Your task to perform on an android device: Find coffee shops on Maps Image 0: 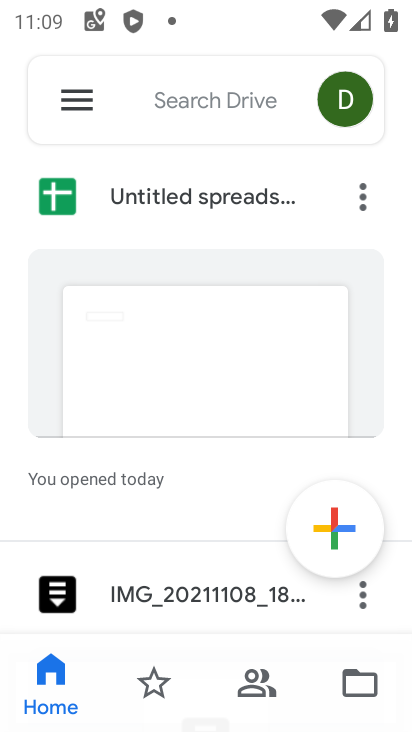
Step 0: press home button
Your task to perform on an android device: Find coffee shops on Maps Image 1: 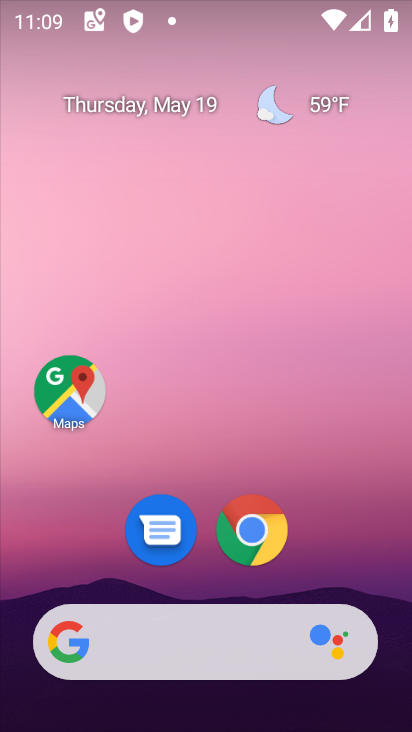
Step 1: drag from (367, 564) to (384, 131)
Your task to perform on an android device: Find coffee shops on Maps Image 2: 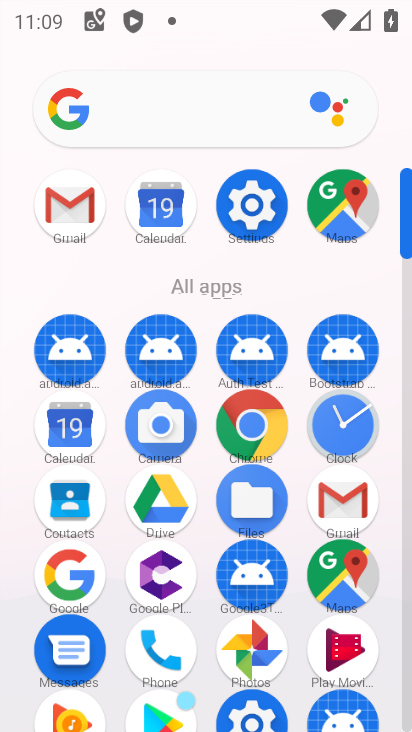
Step 2: click (337, 588)
Your task to perform on an android device: Find coffee shops on Maps Image 3: 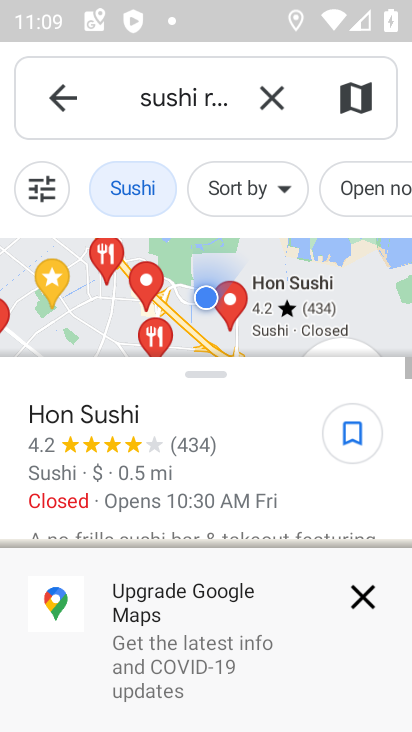
Step 3: click (272, 102)
Your task to perform on an android device: Find coffee shops on Maps Image 4: 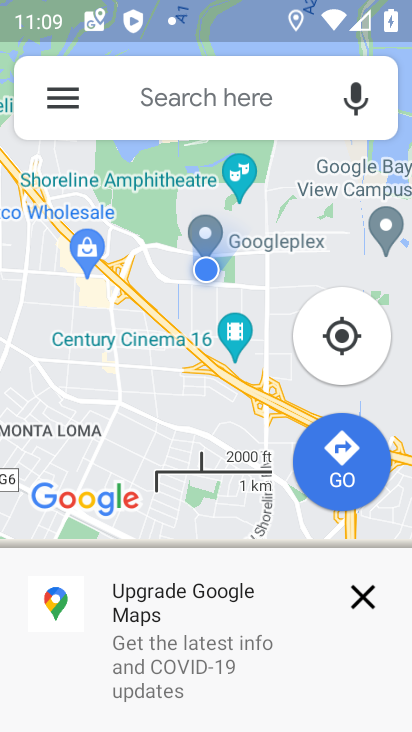
Step 4: click (195, 101)
Your task to perform on an android device: Find coffee shops on Maps Image 5: 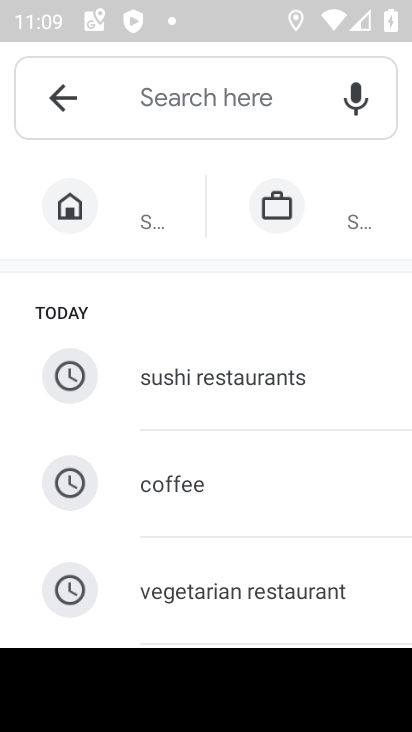
Step 5: click (179, 500)
Your task to perform on an android device: Find coffee shops on Maps Image 6: 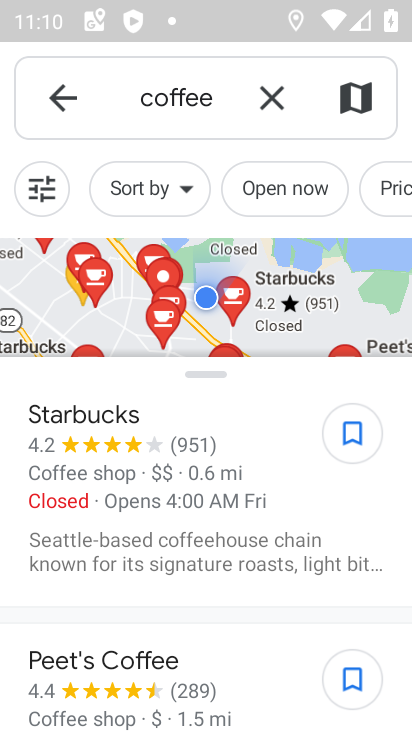
Step 6: task complete